Your task to perform on an android device: find photos in the google photos app Image 0: 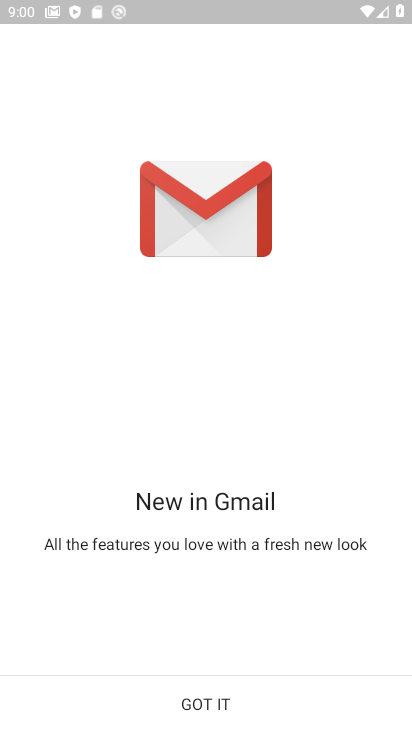
Step 0: press home button
Your task to perform on an android device: find photos in the google photos app Image 1: 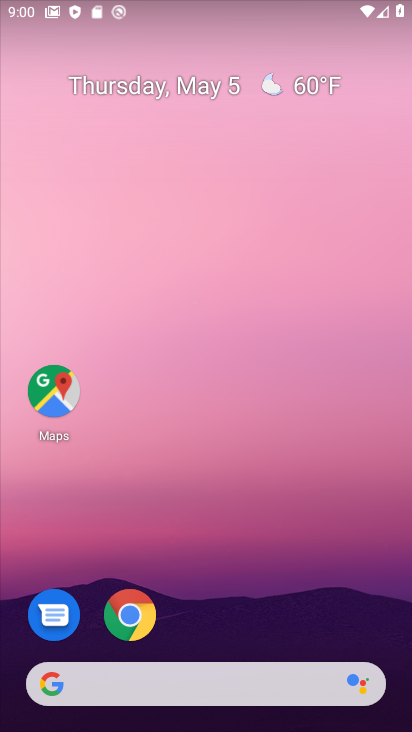
Step 1: drag from (246, 623) to (235, 121)
Your task to perform on an android device: find photos in the google photos app Image 2: 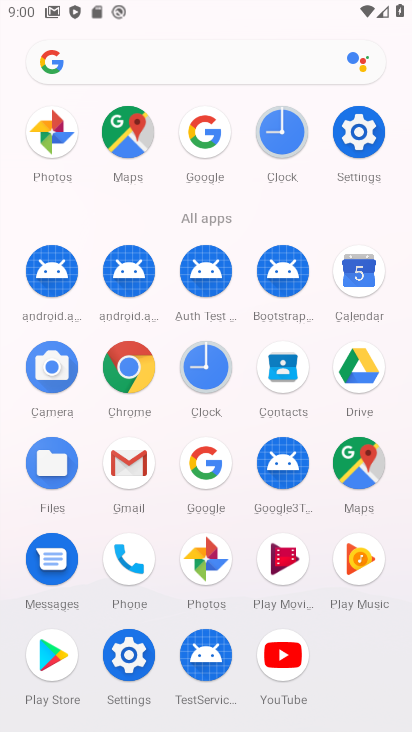
Step 2: click (206, 558)
Your task to perform on an android device: find photos in the google photos app Image 3: 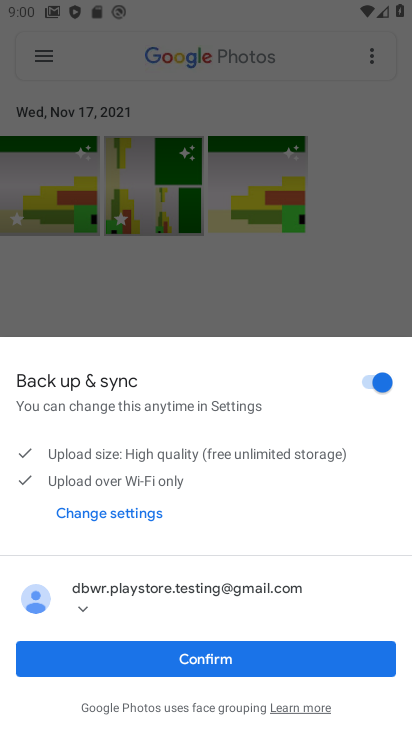
Step 3: click (218, 659)
Your task to perform on an android device: find photos in the google photos app Image 4: 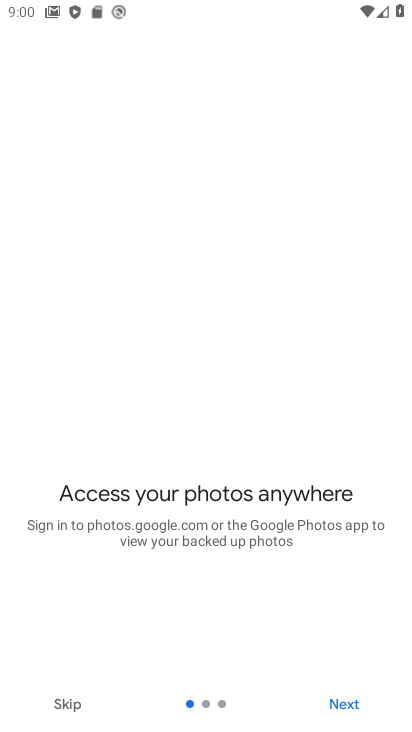
Step 4: click (338, 705)
Your task to perform on an android device: find photos in the google photos app Image 5: 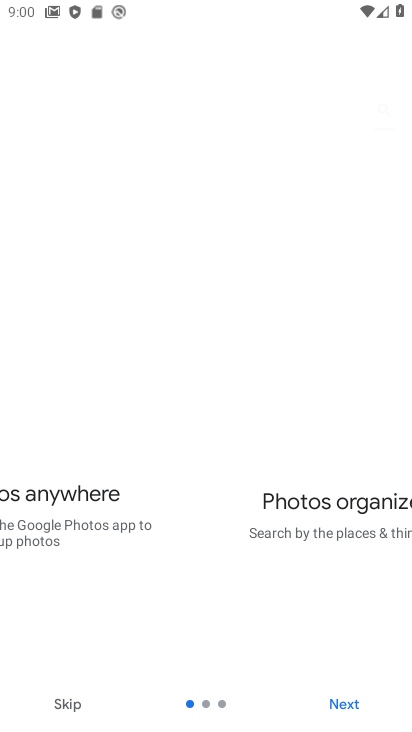
Step 5: click (338, 705)
Your task to perform on an android device: find photos in the google photos app Image 6: 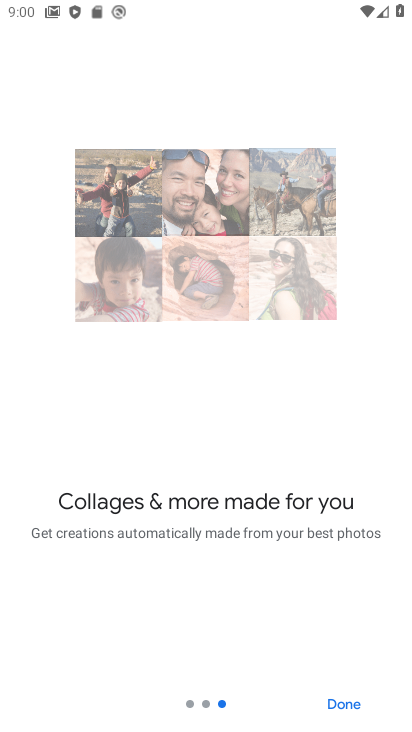
Step 6: click (338, 705)
Your task to perform on an android device: find photos in the google photos app Image 7: 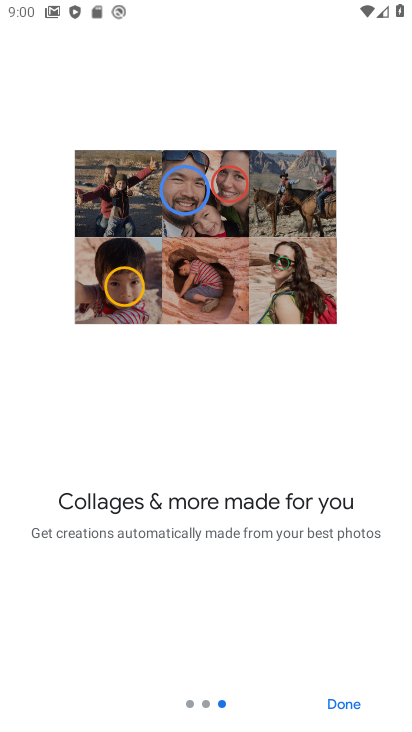
Step 7: click (338, 705)
Your task to perform on an android device: find photos in the google photos app Image 8: 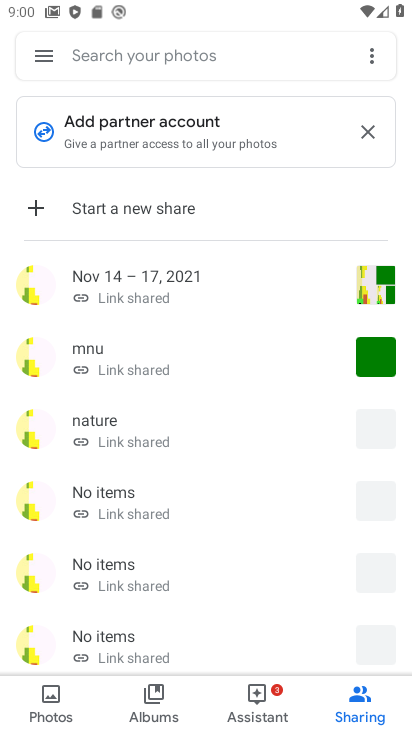
Step 8: click (54, 707)
Your task to perform on an android device: find photos in the google photos app Image 9: 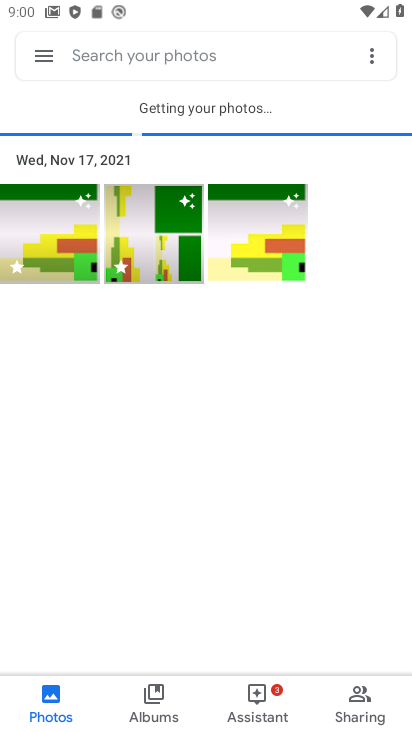
Step 9: task complete